Your task to perform on an android device: toggle sleep mode Image 0: 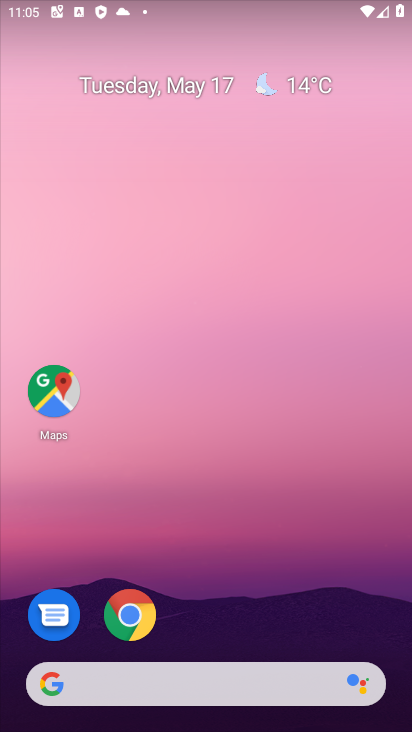
Step 0: drag from (392, 648) to (325, 204)
Your task to perform on an android device: toggle sleep mode Image 1: 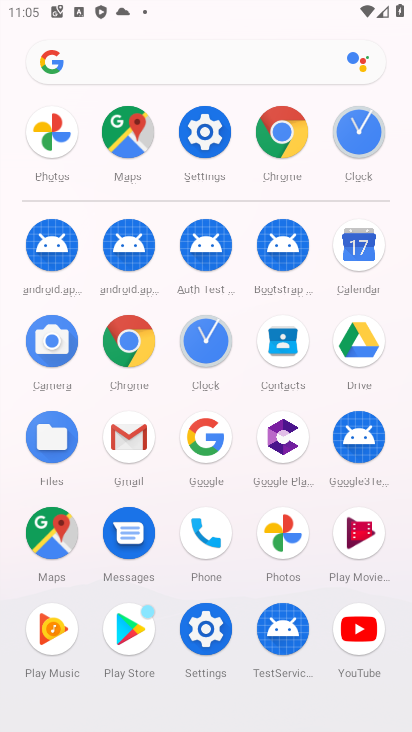
Step 1: click (207, 624)
Your task to perform on an android device: toggle sleep mode Image 2: 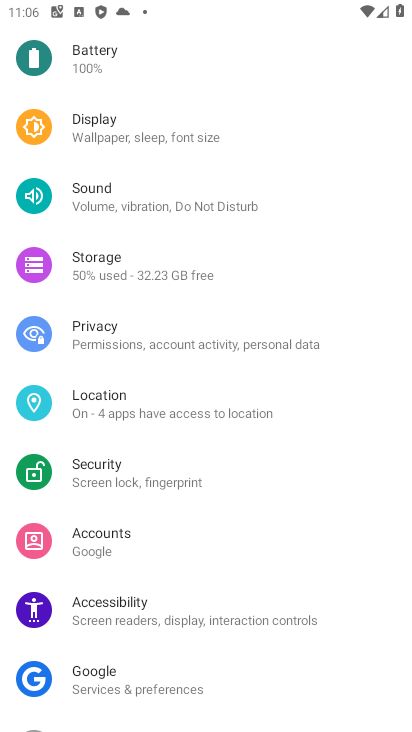
Step 2: click (118, 132)
Your task to perform on an android device: toggle sleep mode Image 3: 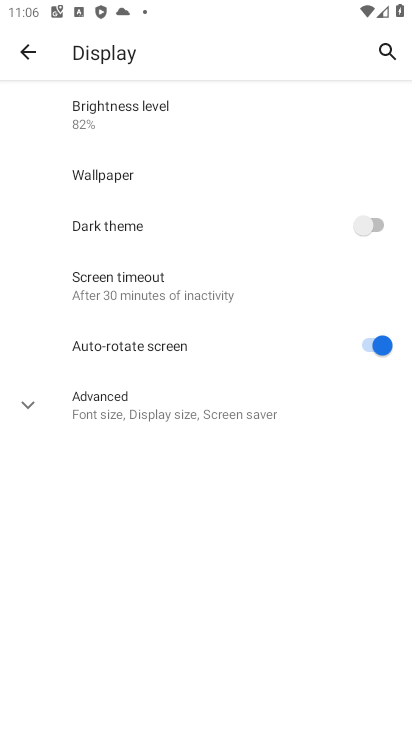
Step 3: click (6, 395)
Your task to perform on an android device: toggle sleep mode Image 4: 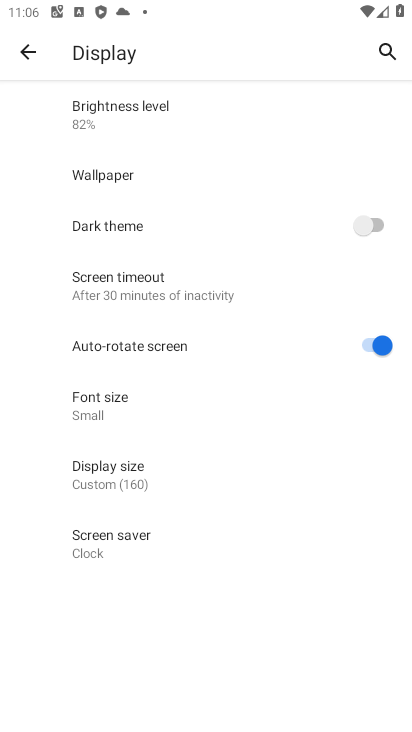
Step 4: task complete